Your task to perform on an android device: turn off notifications in google photos Image 0: 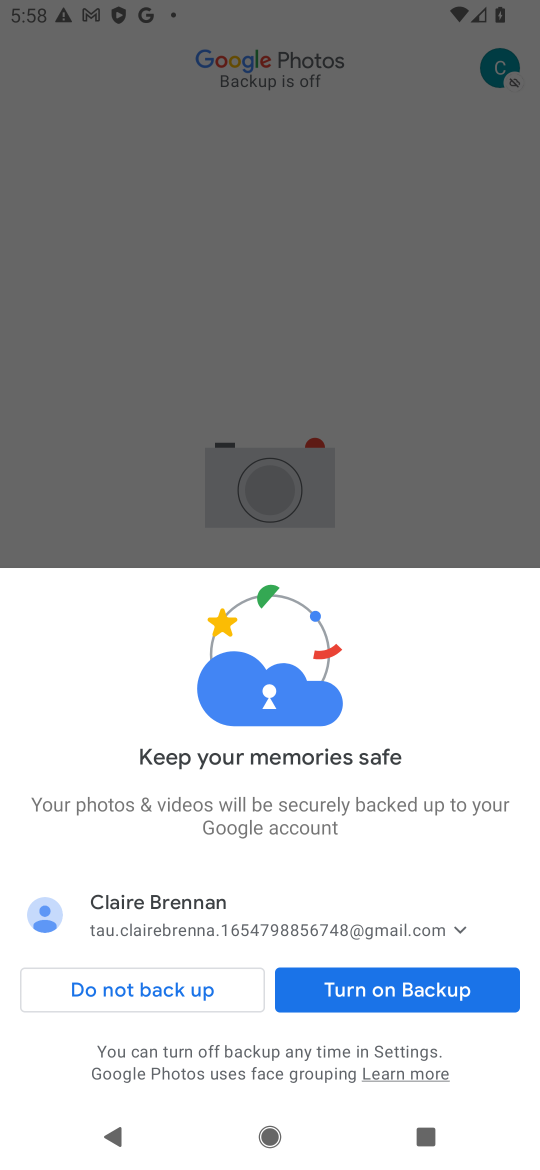
Step 0: click (430, 984)
Your task to perform on an android device: turn off notifications in google photos Image 1: 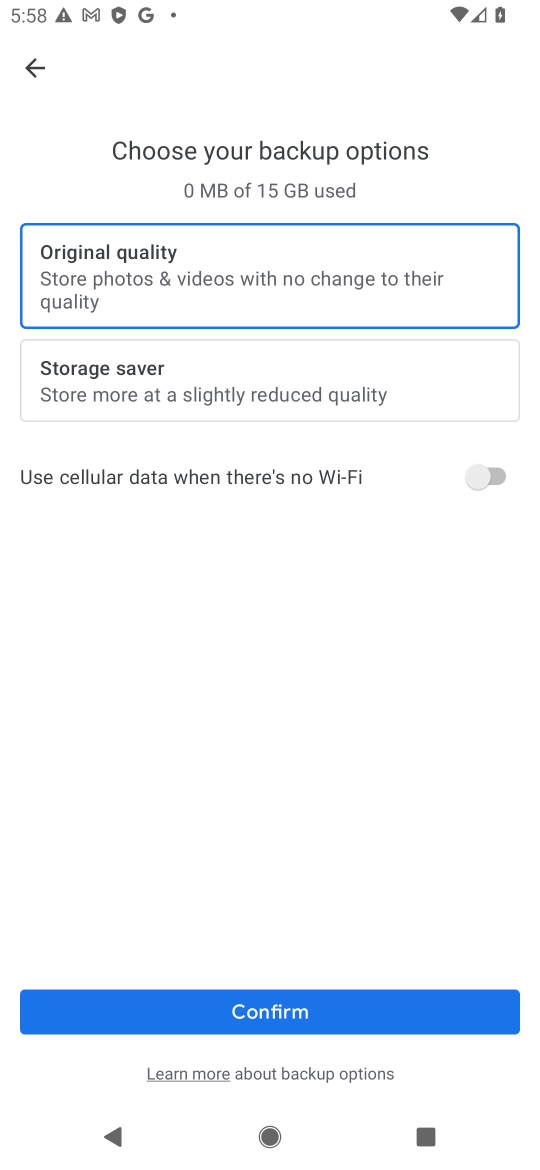
Step 1: click (331, 1005)
Your task to perform on an android device: turn off notifications in google photos Image 2: 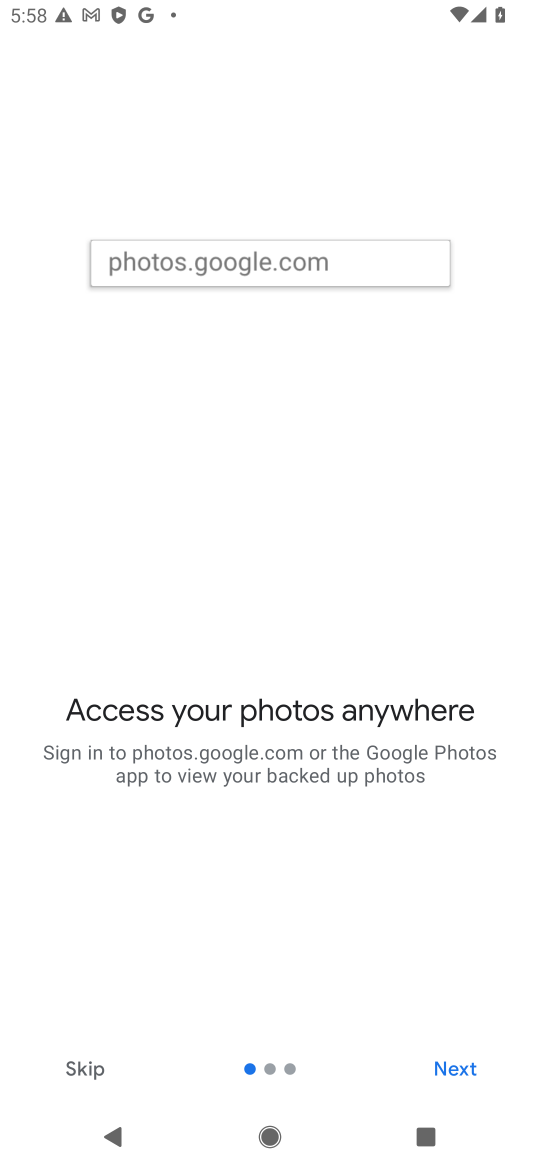
Step 2: click (85, 1060)
Your task to perform on an android device: turn off notifications in google photos Image 3: 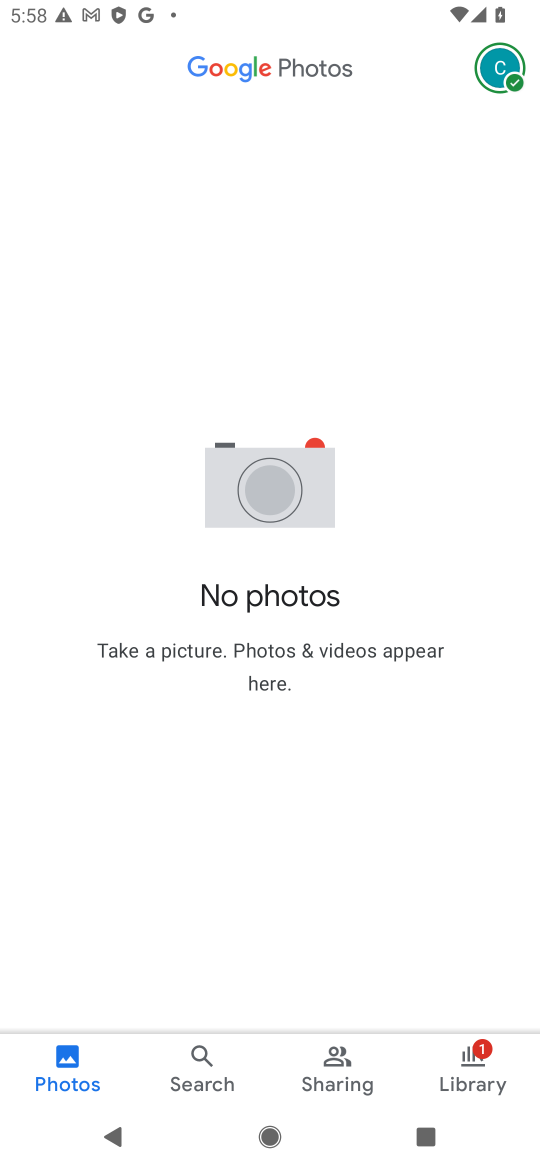
Step 3: click (496, 61)
Your task to perform on an android device: turn off notifications in google photos Image 4: 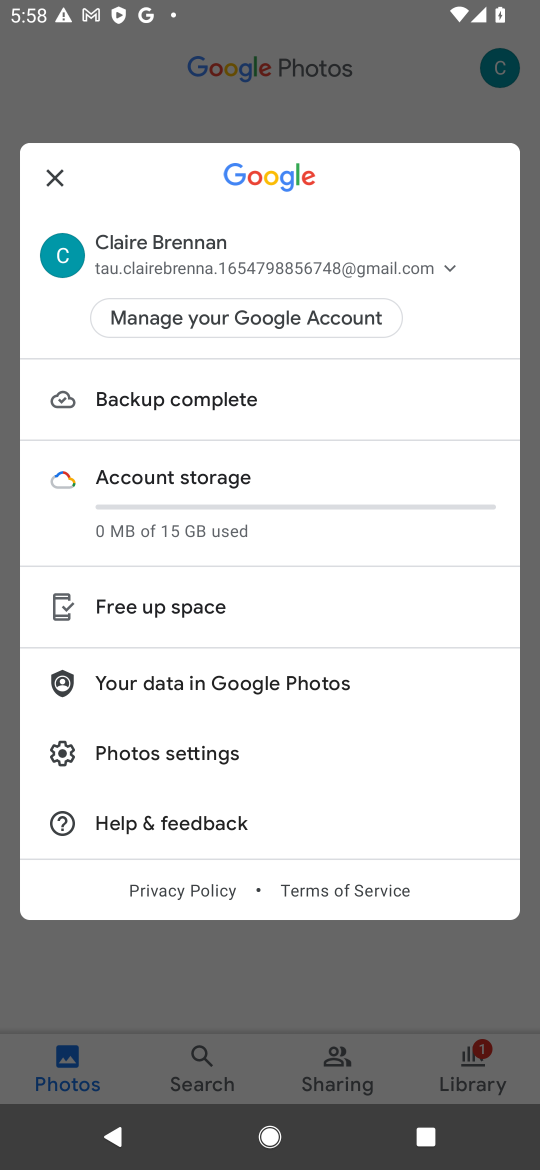
Step 4: click (180, 748)
Your task to perform on an android device: turn off notifications in google photos Image 5: 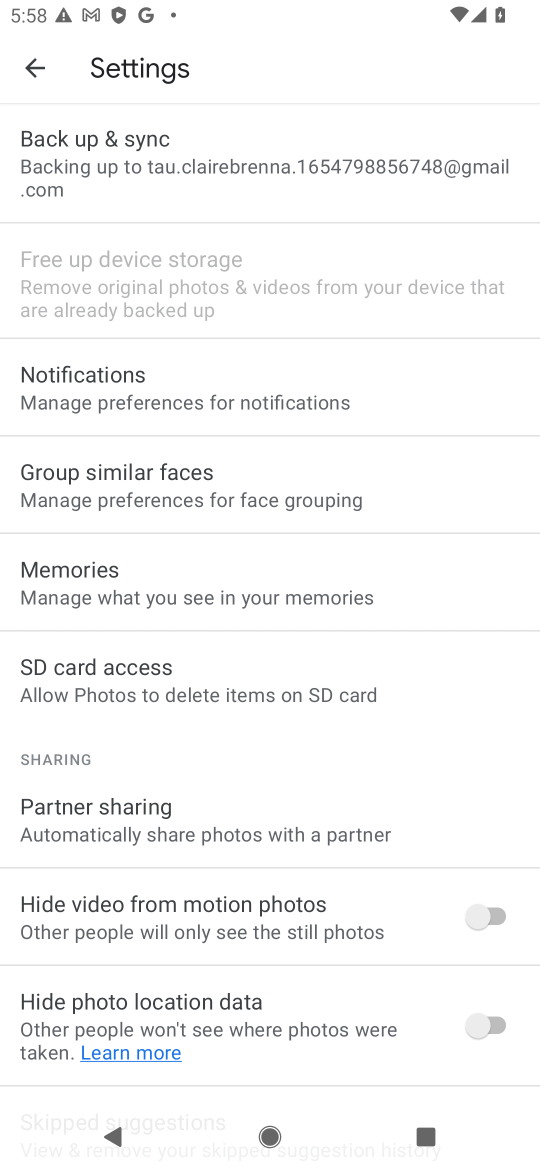
Step 5: click (104, 396)
Your task to perform on an android device: turn off notifications in google photos Image 6: 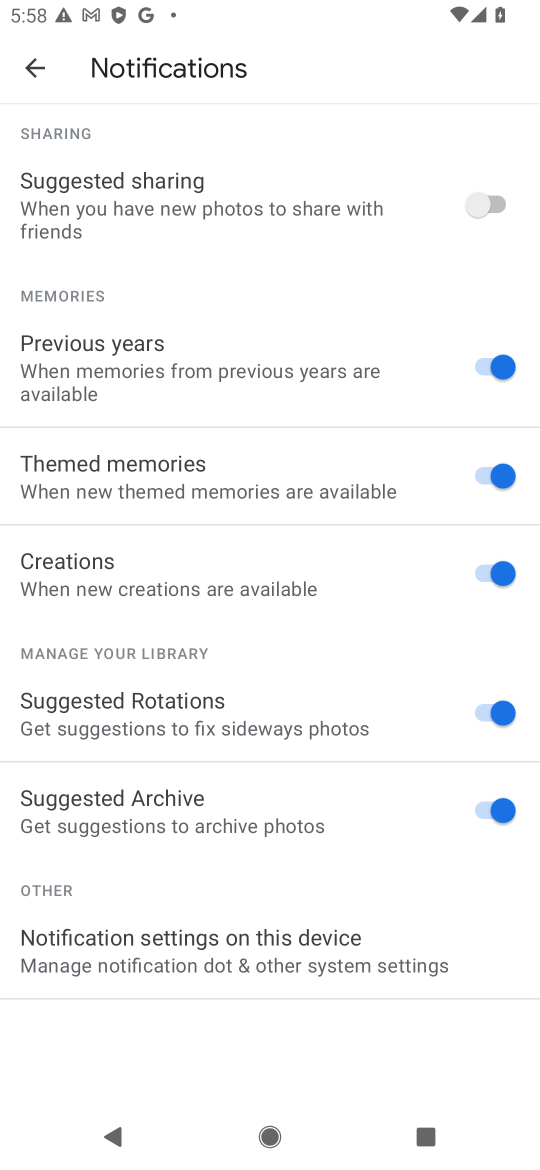
Step 6: click (309, 914)
Your task to perform on an android device: turn off notifications in google photos Image 7: 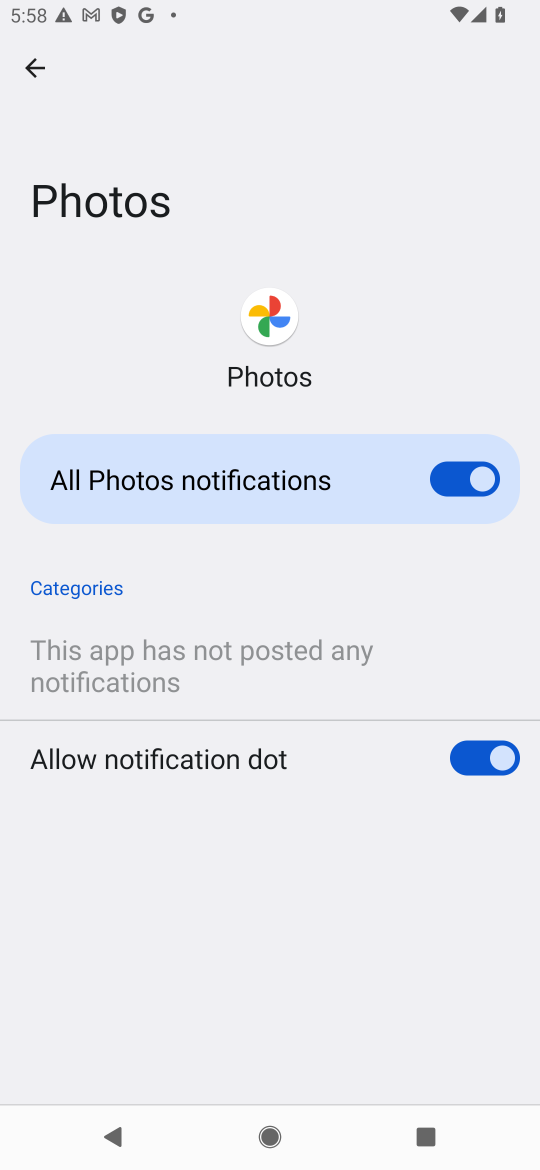
Step 7: click (451, 465)
Your task to perform on an android device: turn off notifications in google photos Image 8: 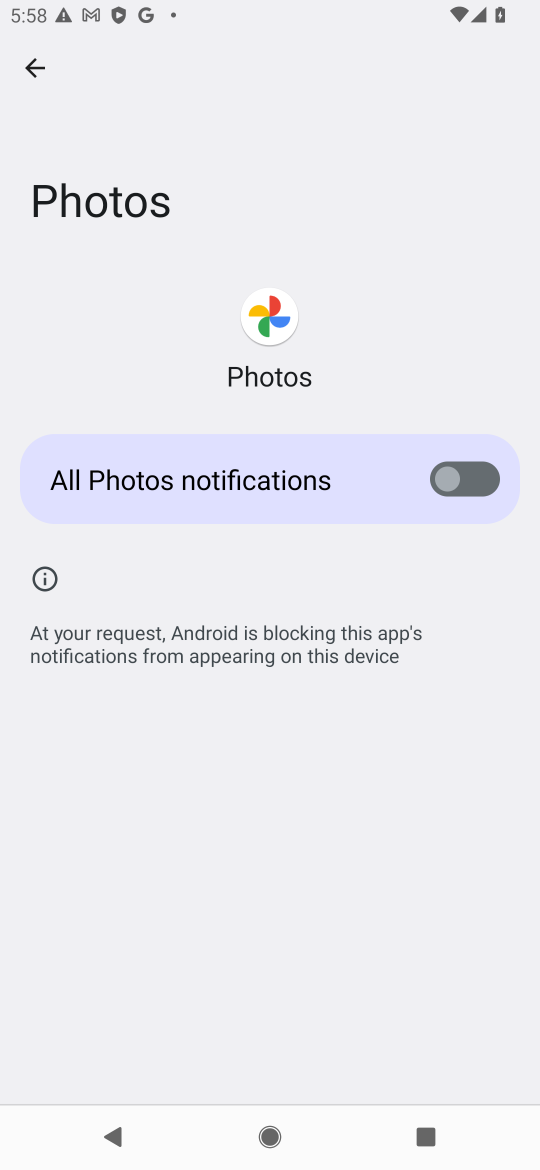
Step 8: task complete